Your task to perform on an android device: What's the weather going to be this weekend? Image 0: 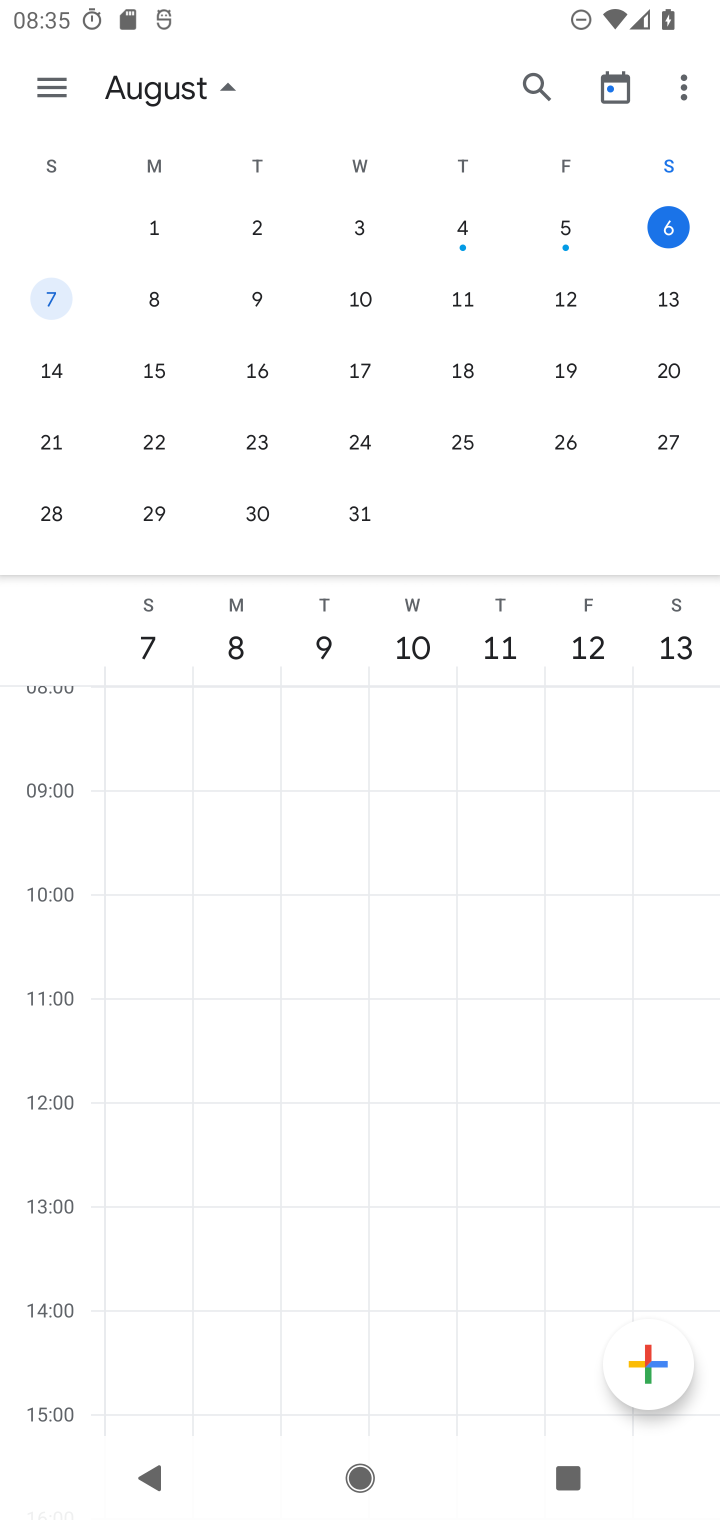
Step 0: press home button
Your task to perform on an android device: What's the weather going to be this weekend? Image 1: 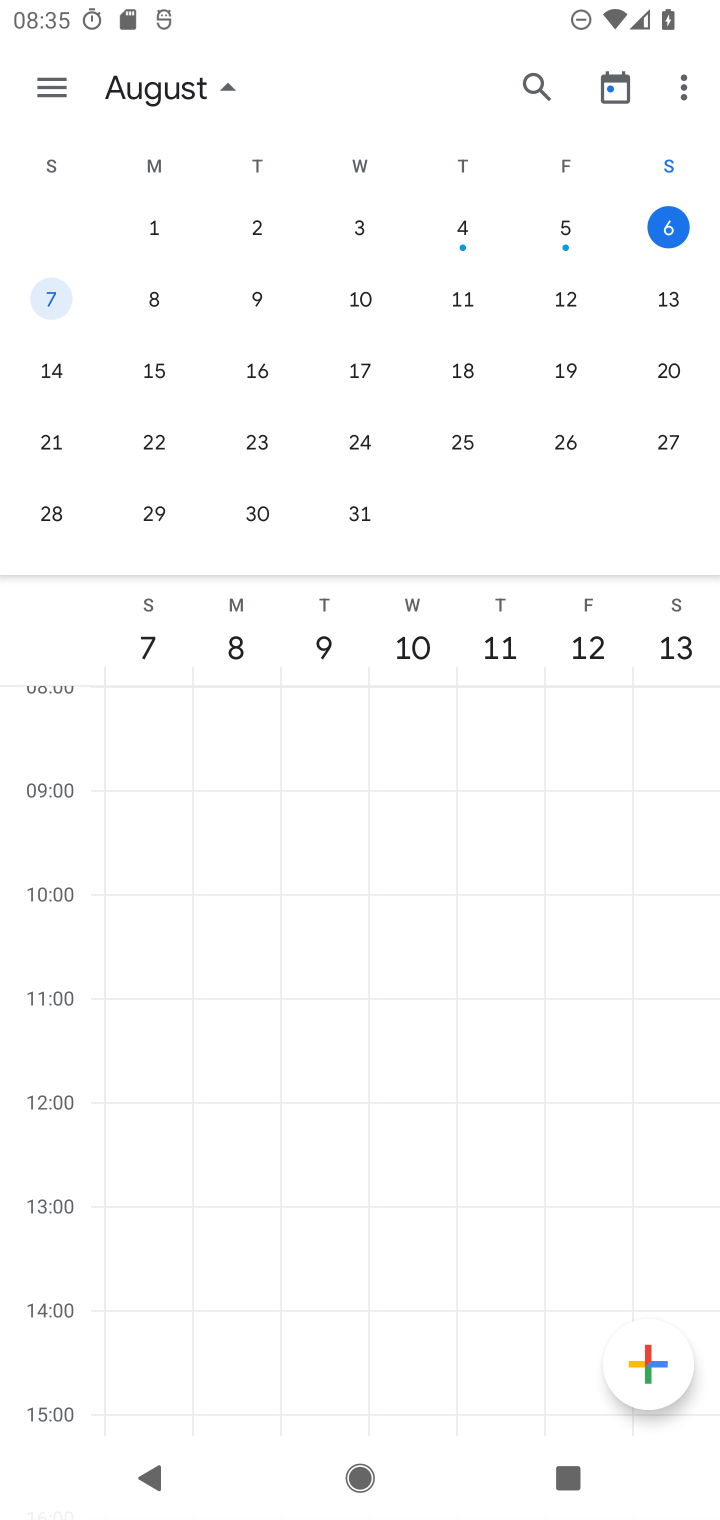
Step 1: press home button
Your task to perform on an android device: What's the weather going to be this weekend? Image 2: 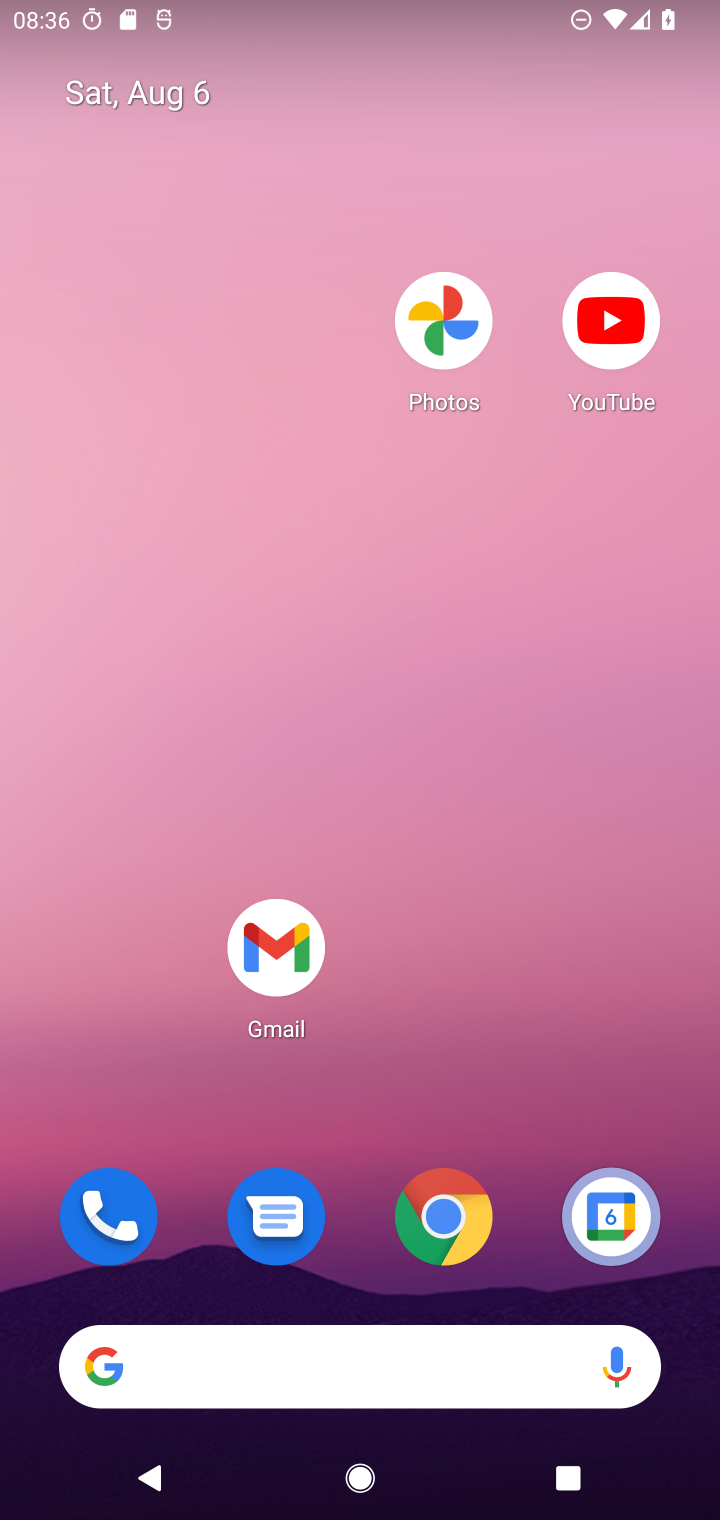
Step 2: drag from (607, 1050) to (527, 51)
Your task to perform on an android device: What's the weather going to be this weekend? Image 3: 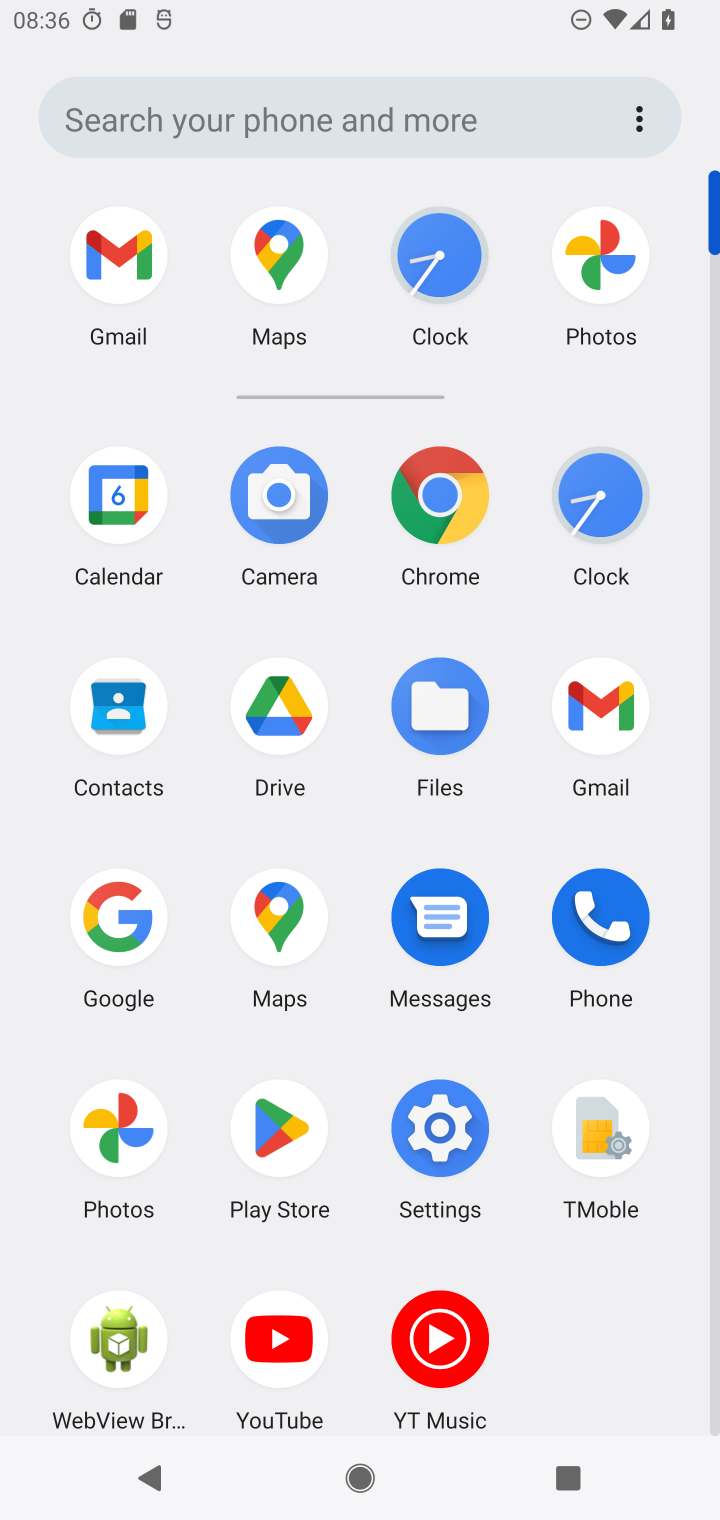
Step 3: click (435, 487)
Your task to perform on an android device: What's the weather going to be this weekend? Image 4: 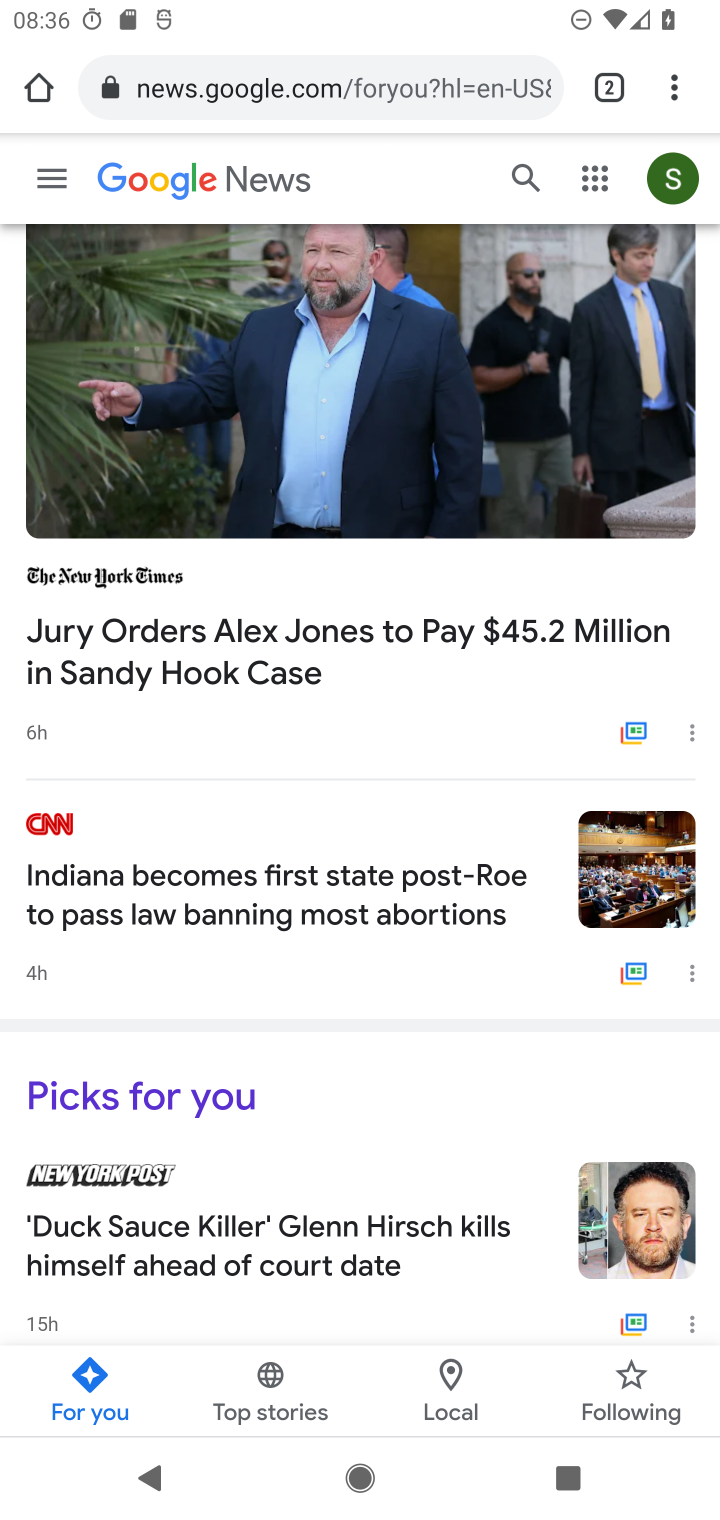
Step 4: click (392, 98)
Your task to perform on an android device: What's the weather going to be this weekend? Image 5: 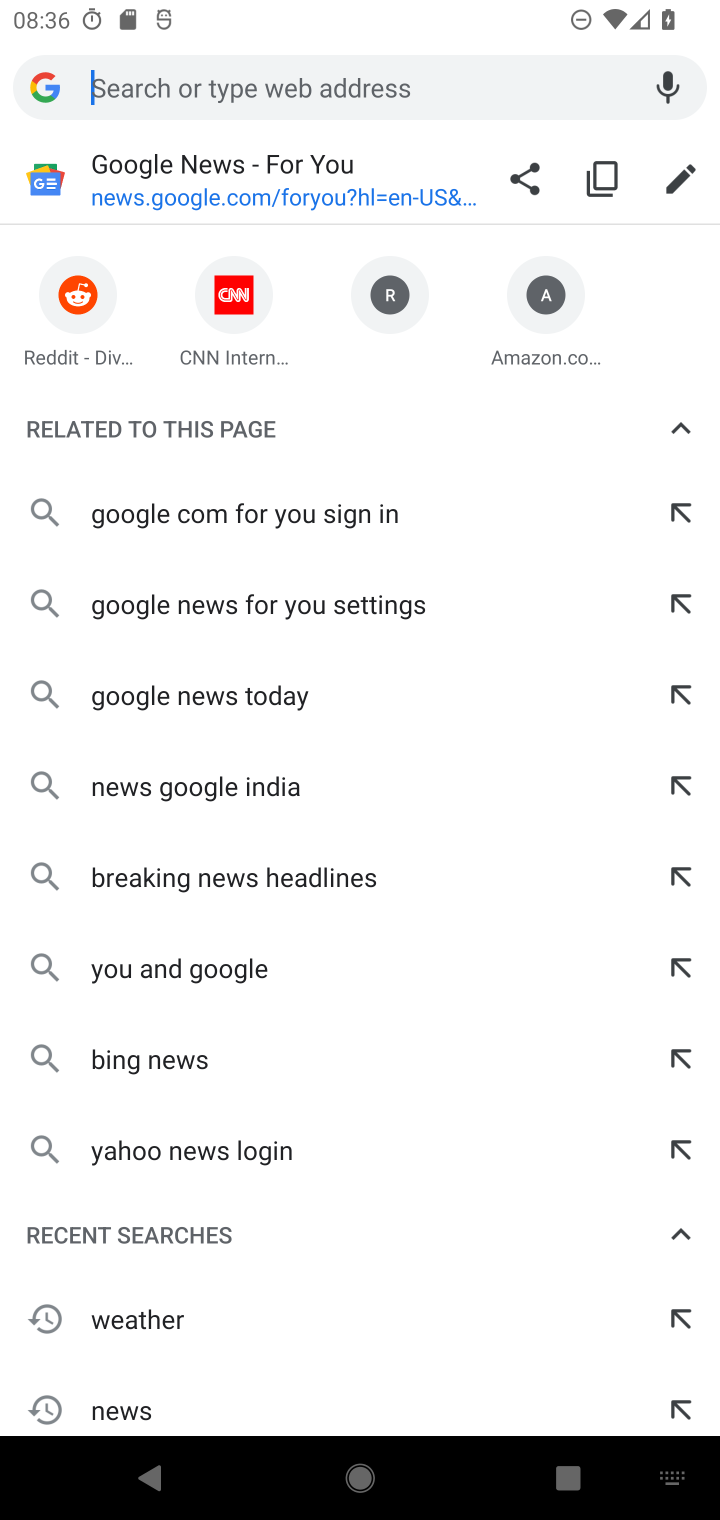
Step 5: type "weather"
Your task to perform on an android device: What's the weather going to be this weekend? Image 6: 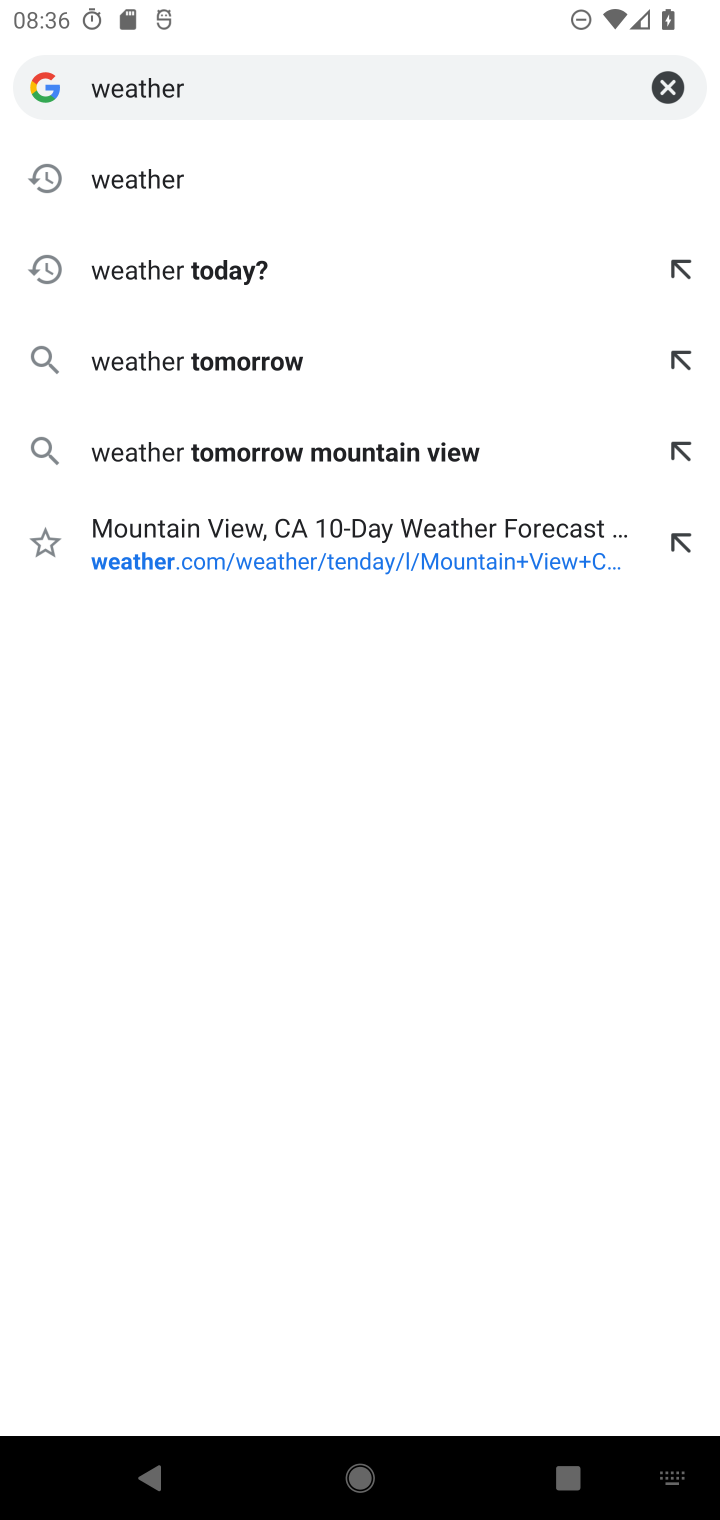
Step 6: click (177, 191)
Your task to perform on an android device: What's the weather going to be this weekend? Image 7: 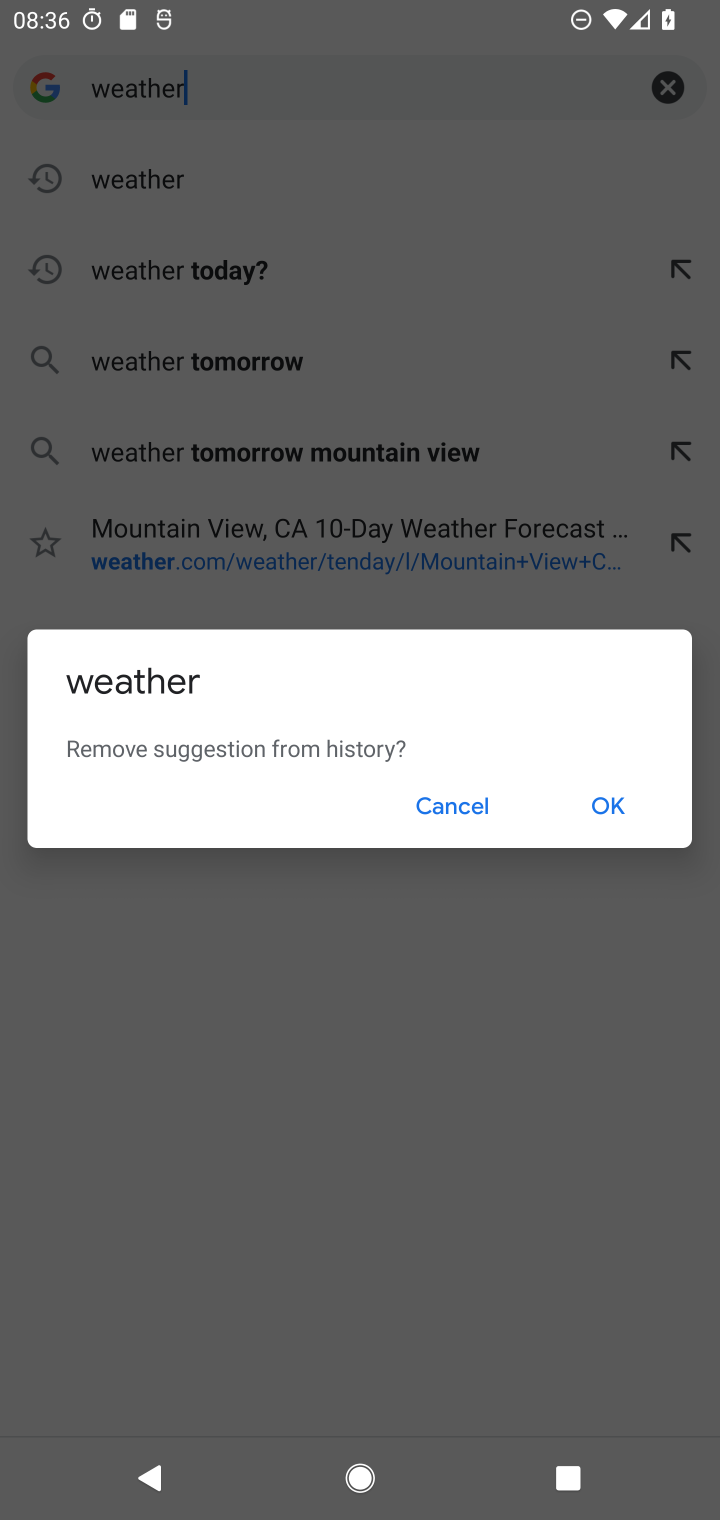
Step 7: click (448, 787)
Your task to perform on an android device: What's the weather going to be this weekend? Image 8: 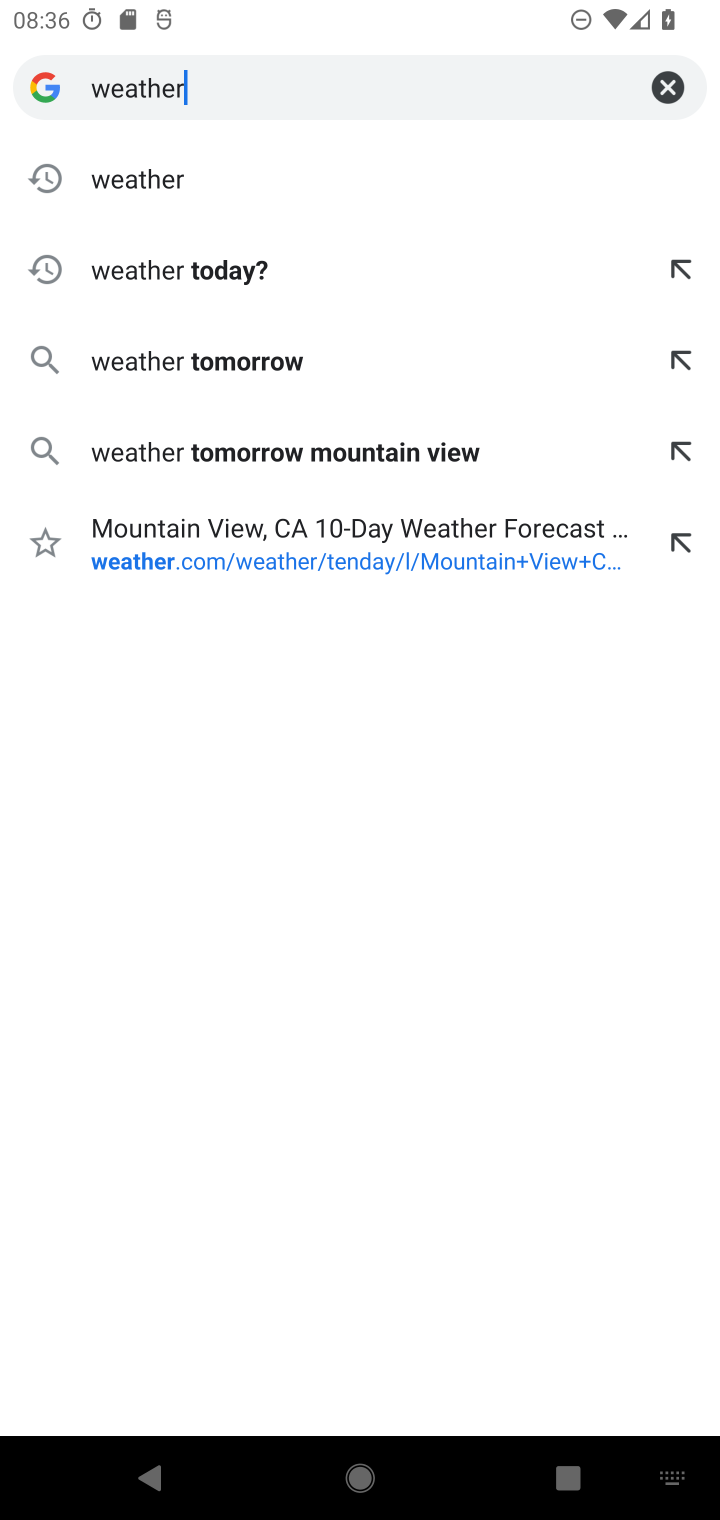
Step 8: click (146, 184)
Your task to perform on an android device: What's the weather going to be this weekend? Image 9: 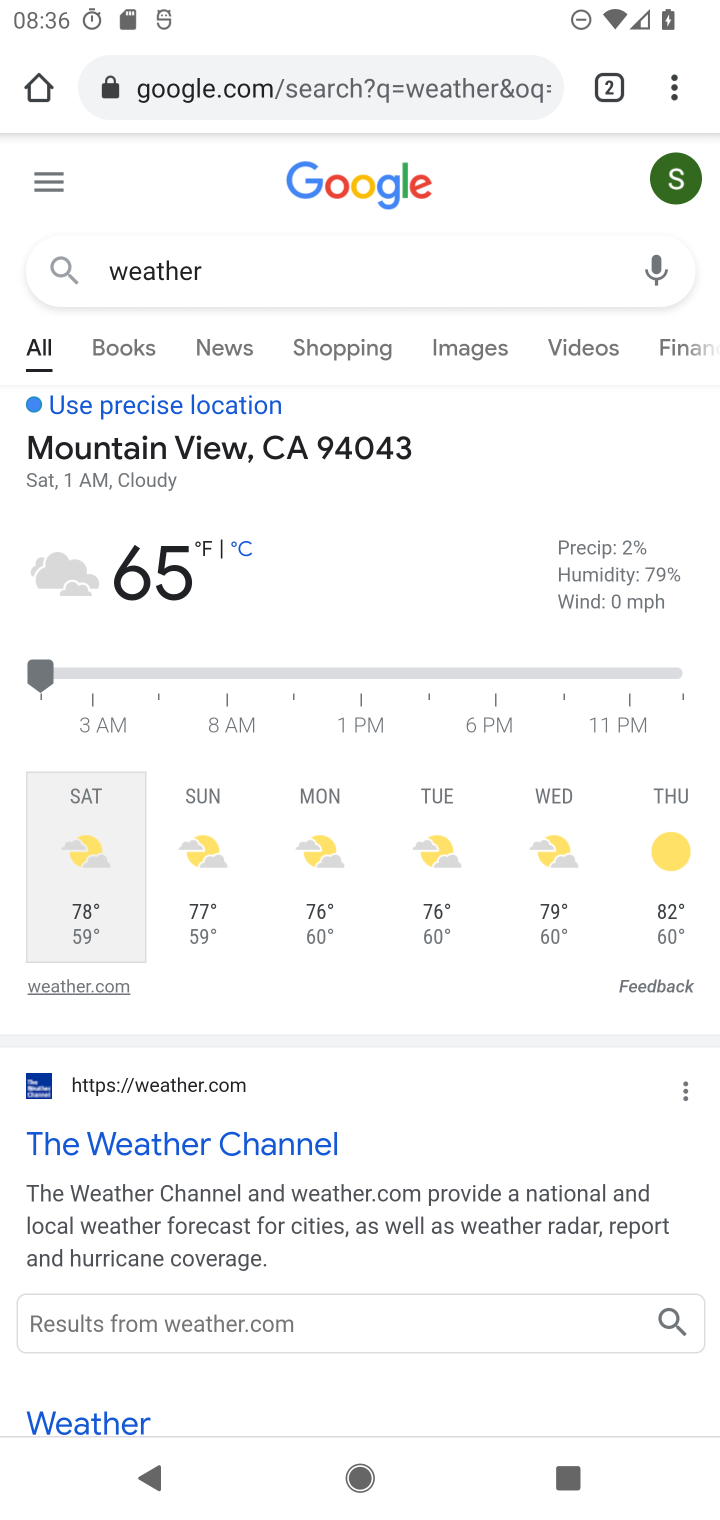
Step 9: task complete